Your task to perform on an android device: Open sound settings Image 0: 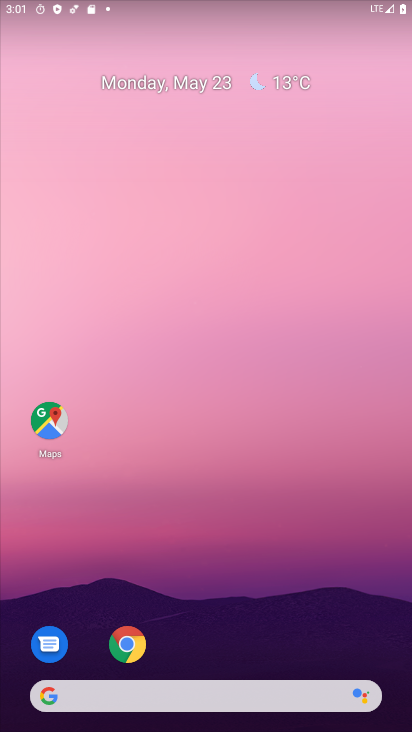
Step 0: drag from (211, 671) to (231, 145)
Your task to perform on an android device: Open sound settings Image 1: 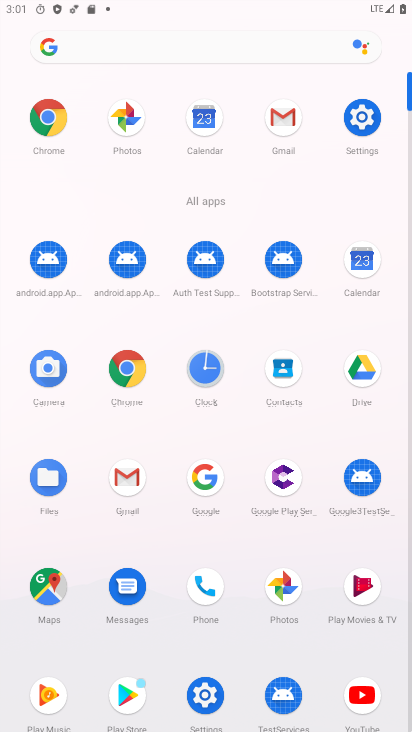
Step 1: click (362, 143)
Your task to perform on an android device: Open sound settings Image 2: 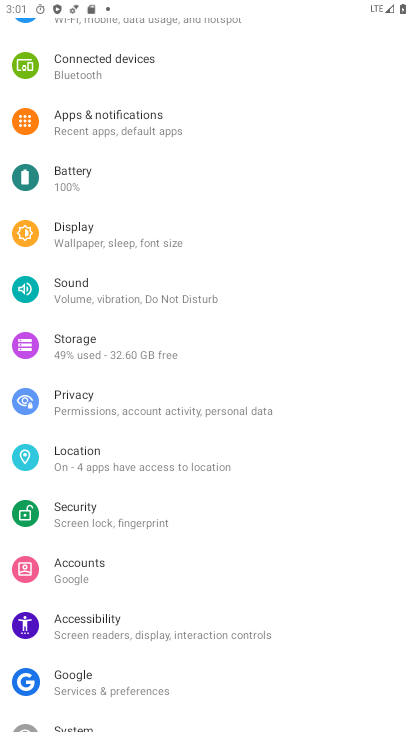
Step 2: click (106, 288)
Your task to perform on an android device: Open sound settings Image 3: 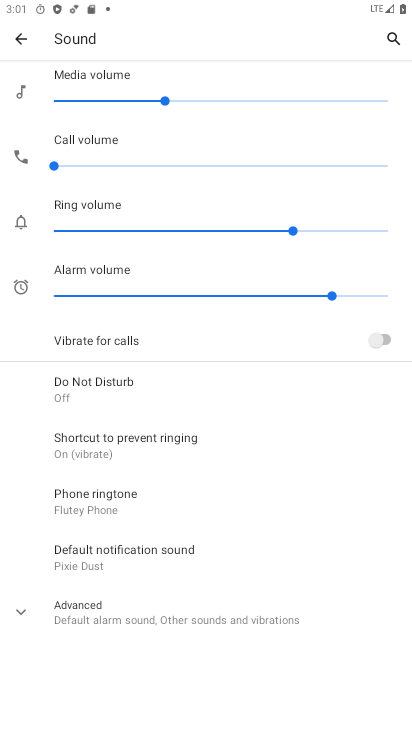
Step 3: task complete